Your task to perform on an android device: all mails in gmail Image 0: 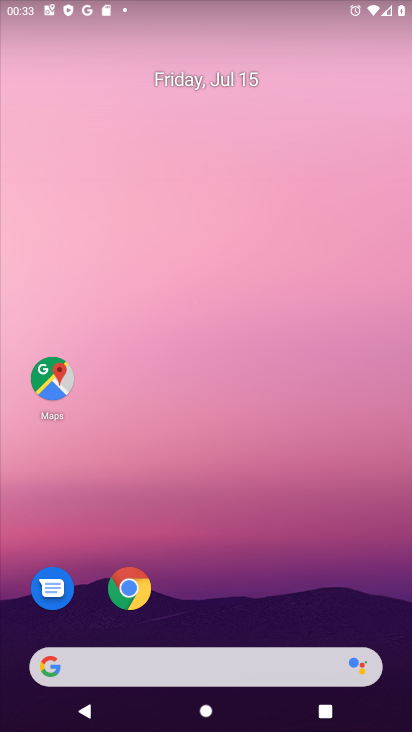
Step 0: press home button
Your task to perform on an android device: all mails in gmail Image 1: 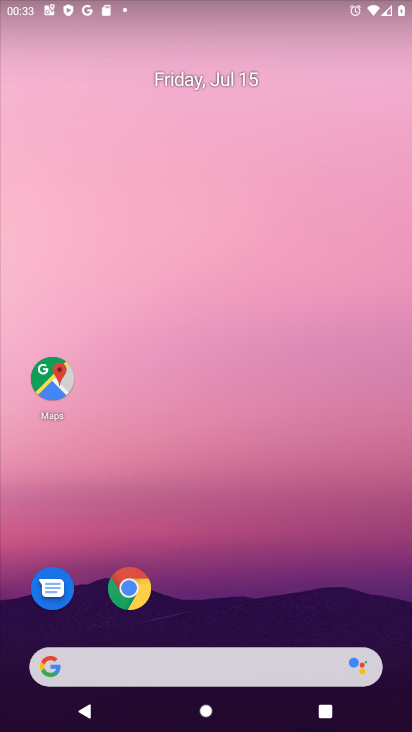
Step 1: drag from (182, 670) to (312, 184)
Your task to perform on an android device: all mails in gmail Image 2: 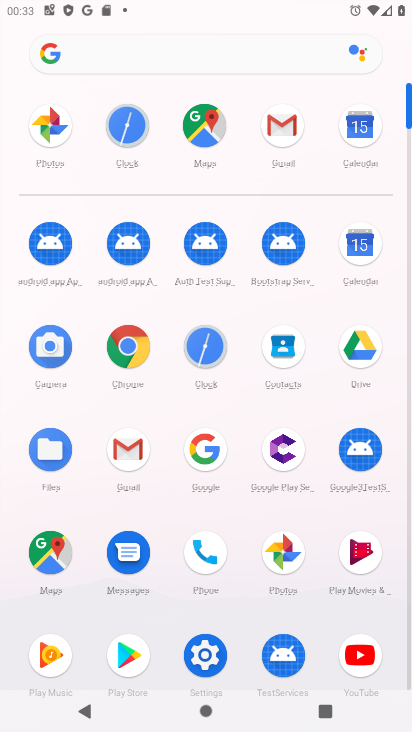
Step 2: click (283, 135)
Your task to perform on an android device: all mails in gmail Image 3: 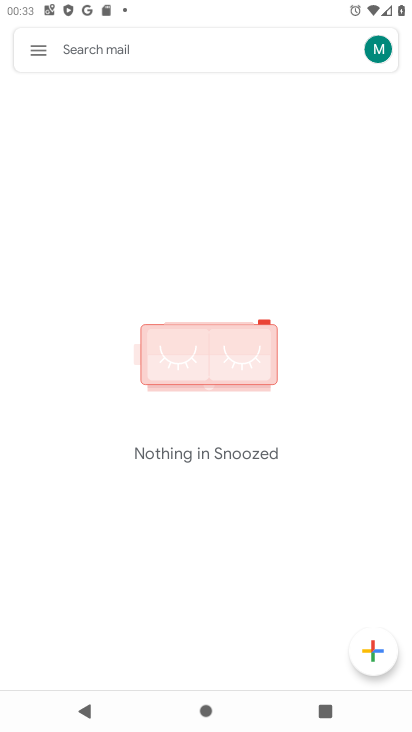
Step 3: click (38, 47)
Your task to perform on an android device: all mails in gmail Image 4: 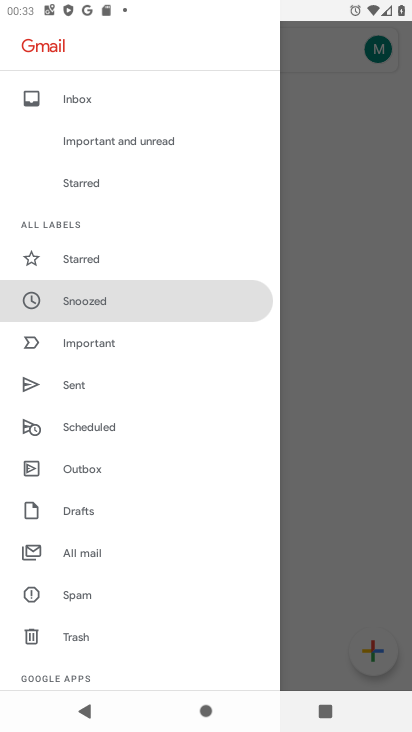
Step 4: click (94, 552)
Your task to perform on an android device: all mails in gmail Image 5: 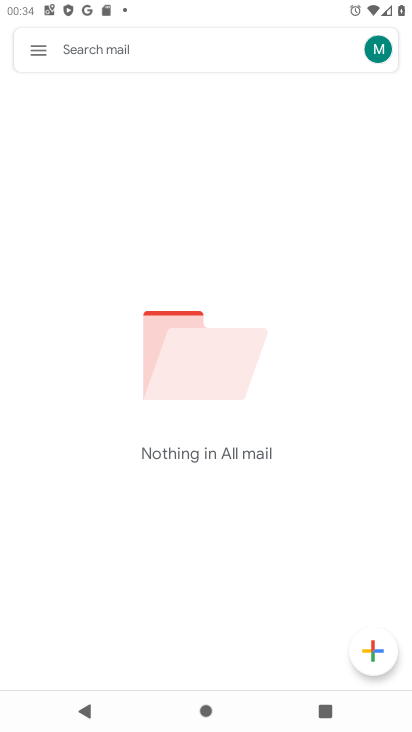
Step 5: task complete